Your task to perform on an android device: turn off notifications in google photos Image 0: 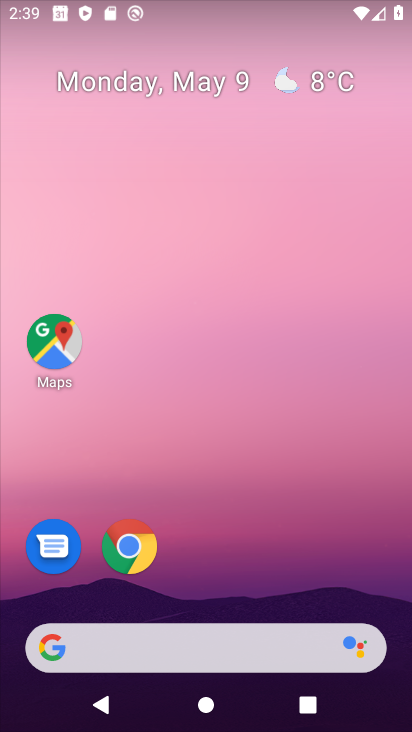
Step 0: drag from (267, 532) to (257, 31)
Your task to perform on an android device: turn off notifications in google photos Image 1: 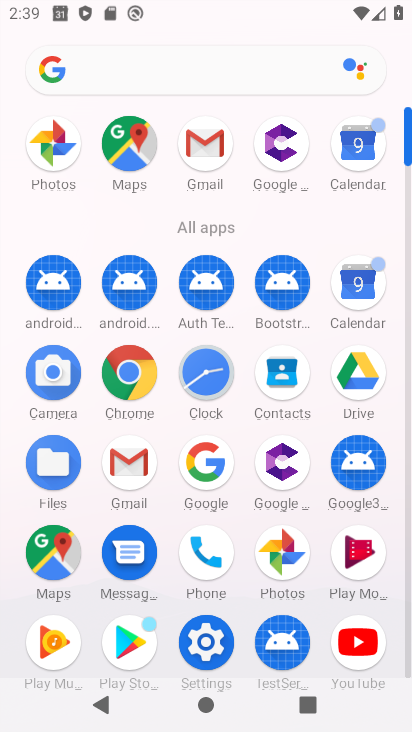
Step 1: click (199, 635)
Your task to perform on an android device: turn off notifications in google photos Image 2: 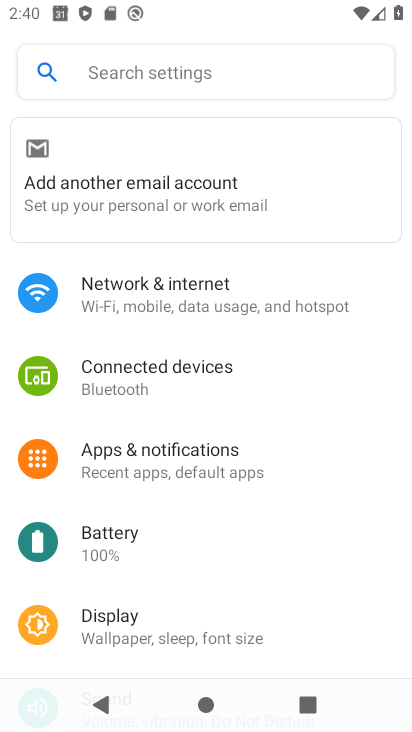
Step 2: click (204, 459)
Your task to perform on an android device: turn off notifications in google photos Image 3: 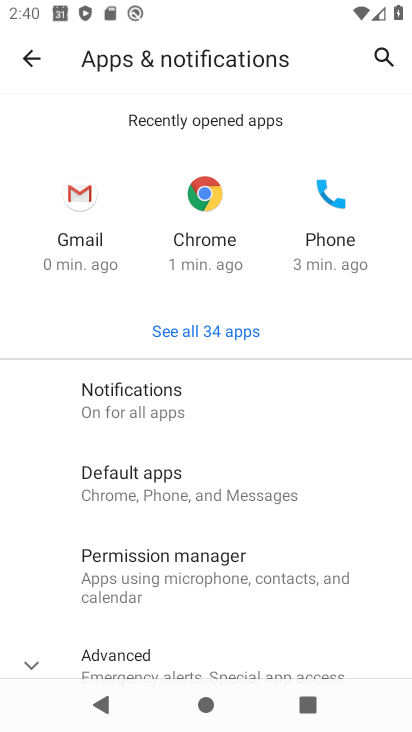
Step 3: click (210, 322)
Your task to perform on an android device: turn off notifications in google photos Image 4: 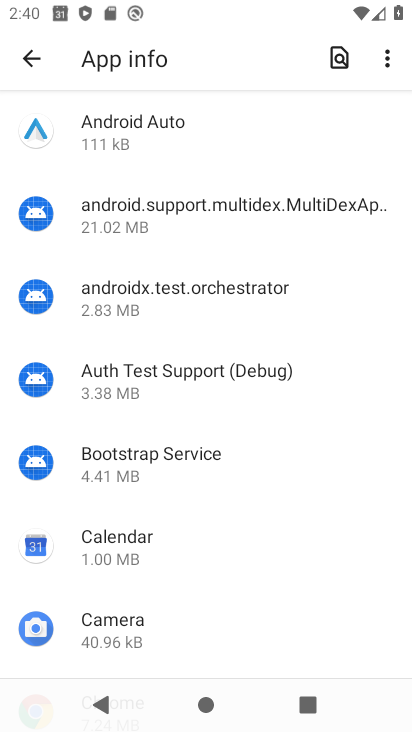
Step 4: drag from (217, 599) to (219, 51)
Your task to perform on an android device: turn off notifications in google photos Image 5: 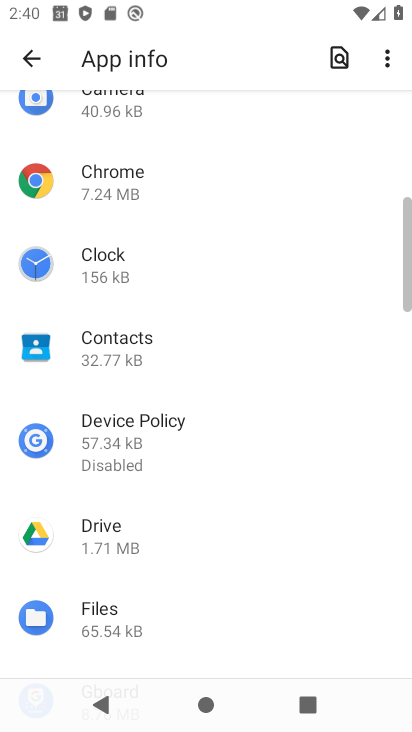
Step 5: drag from (194, 627) to (239, 14)
Your task to perform on an android device: turn off notifications in google photos Image 6: 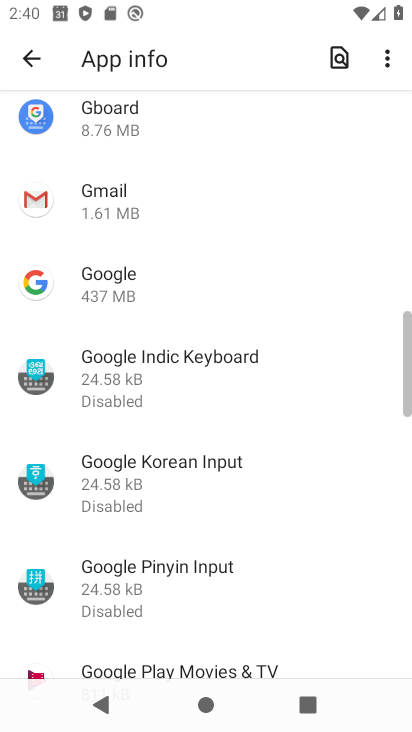
Step 6: drag from (213, 630) to (217, 36)
Your task to perform on an android device: turn off notifications in google photos Image 7: 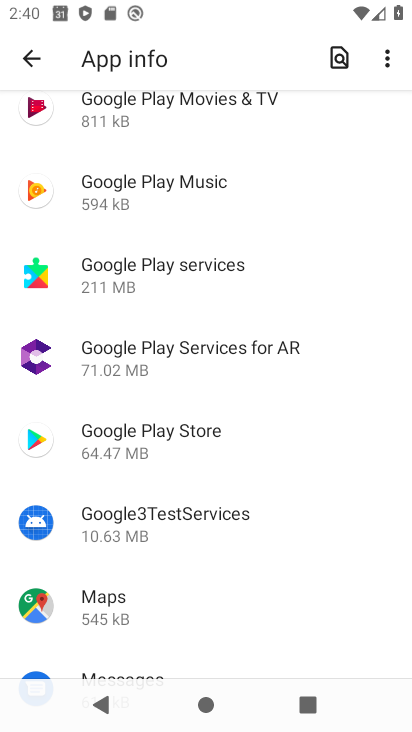
Step 7: drag from (216, 647) to (231, 113)
Your task to perform on an android device: turn off notifications in google photos Image 8: 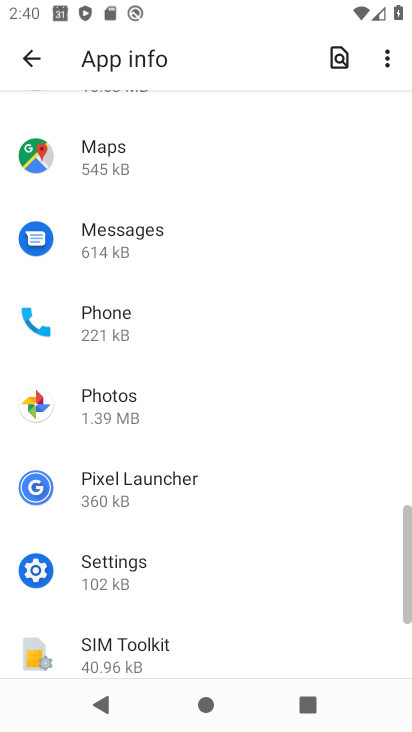
Step 8: click (141, 407)
Your task to perform on an android device: turn off notifications in google photos Image 9: 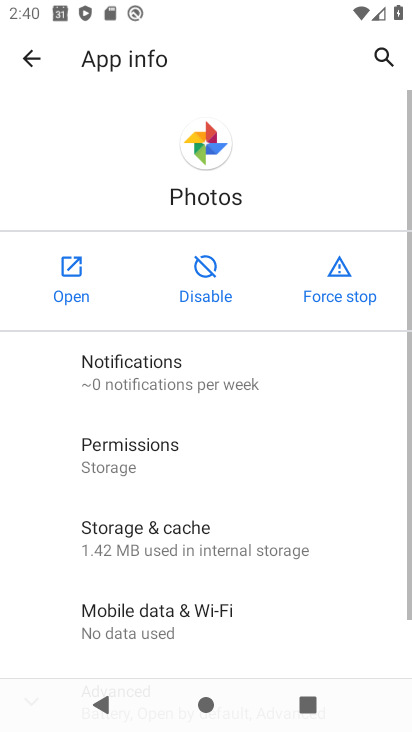
Step 9: click (175, 379)
Your task to perform on an android device: turn off notifications in google photos Image 10: 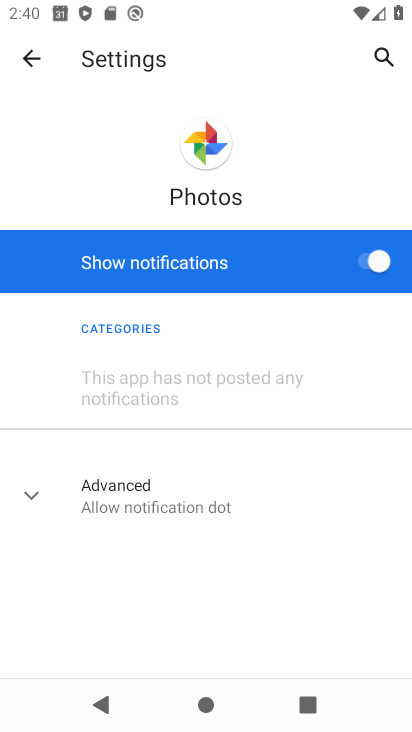
Step 10: click (358, 261)
Your task to perform on an android device: turn off notifications in google photos Image 11: 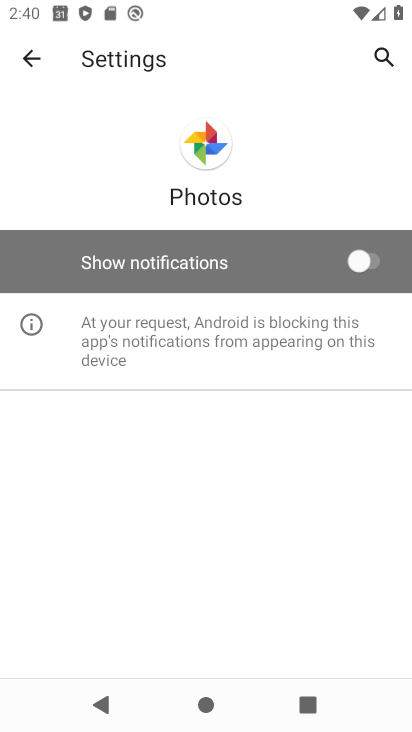
Step 11: task complete